Your task to perform on an android device: see creations saved in the google photos Image 0: 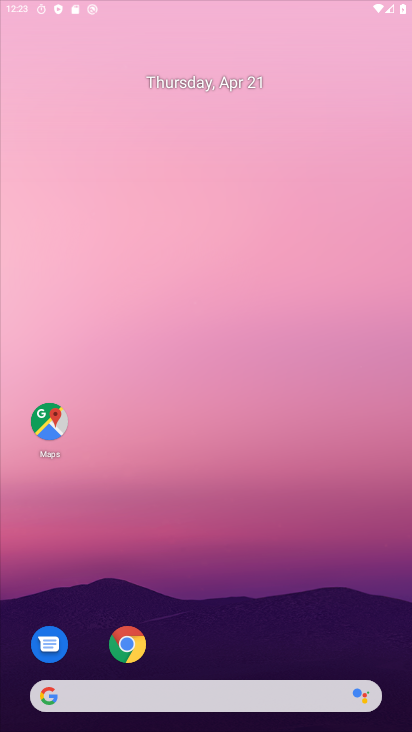
Step 0: click (121, 635)
Your task to perform on an android device: see creations saved in the google photos Image 1: 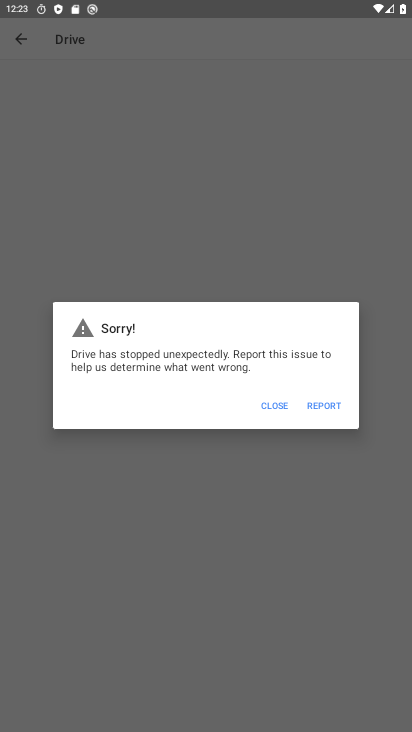
Step 1: click (279, 401)
Your task to perform on an android device: see creations saved in the google photos Image 2: 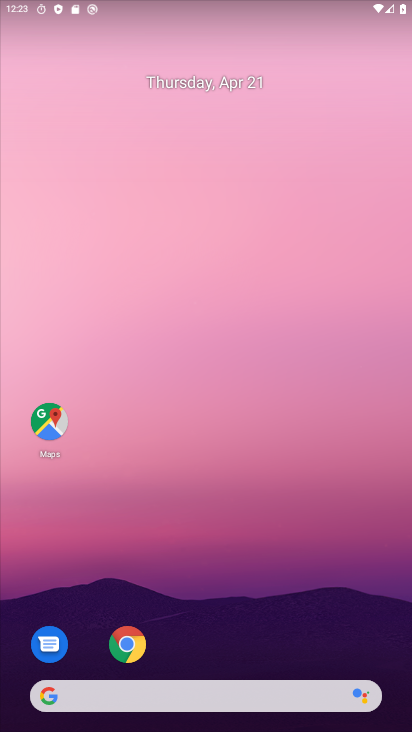
Step 2: drag from (205, 607) to (317, 20)
Your task to perform on an android device: see creations saved in the google photos Image 3: 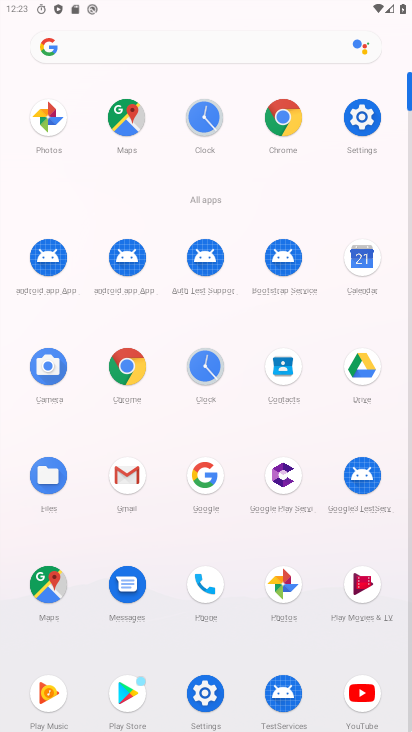
Step 3: click (288, 588)
Your task to perform on an android device: see creations saved in the google photos Image 4: 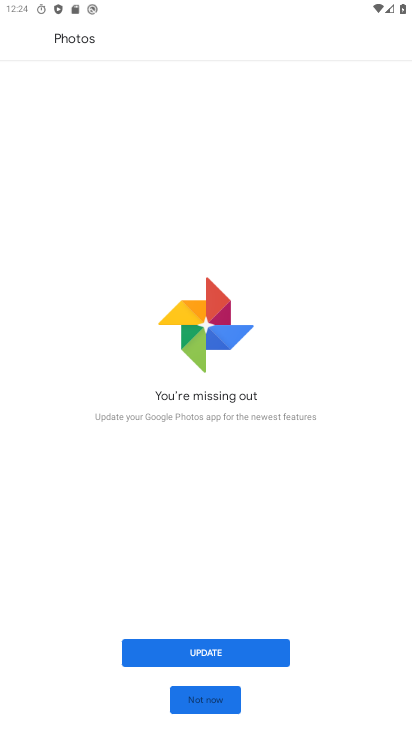
Step 4: click (211, 709)
Your task to perform on an android device: see creations saved in the google photos Image 5: 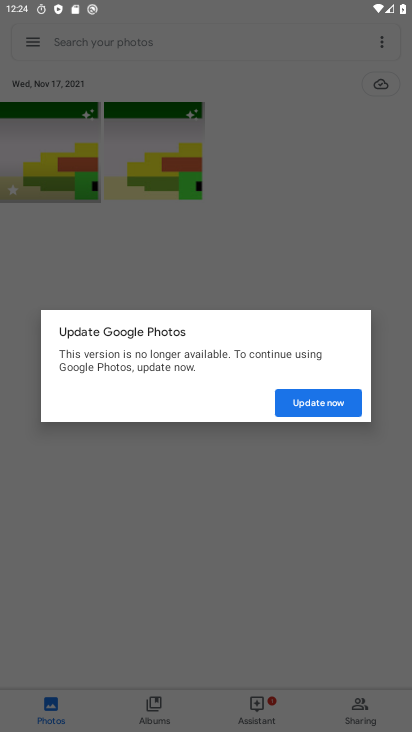
Step 5: click (307, 401)
Your task to perform on an android device: see creations saved in the google photos Image 6: 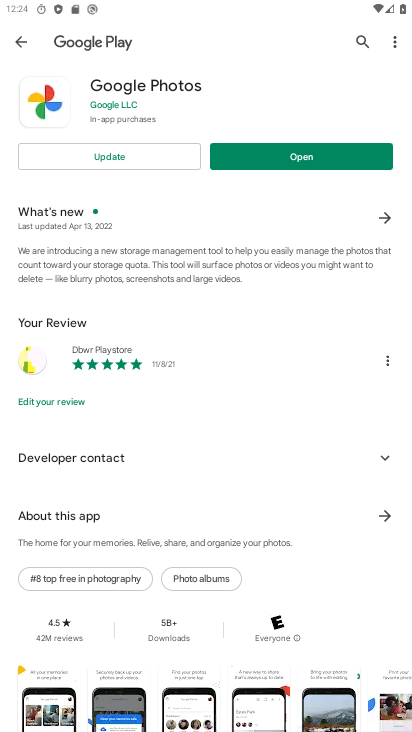
Step 6: click (287, 159)
Your task to perform on an android device: see creations saved in the google photos Image 7: 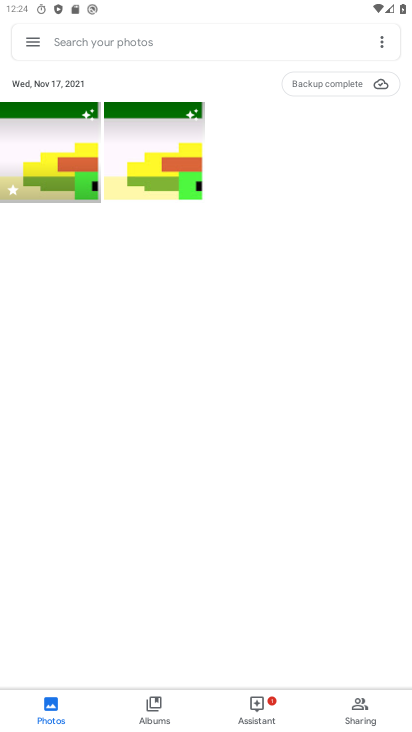
Step 7: click (27, 36)
Your task to perform on an android device: see creations saved in the google photos Image 8: 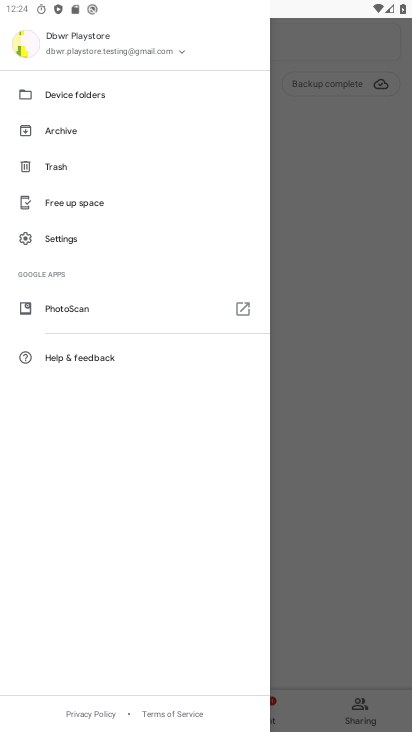
Step 8: click (66, 125)
Your task to perform on an android device: see creations saved in the google photos Image 9: 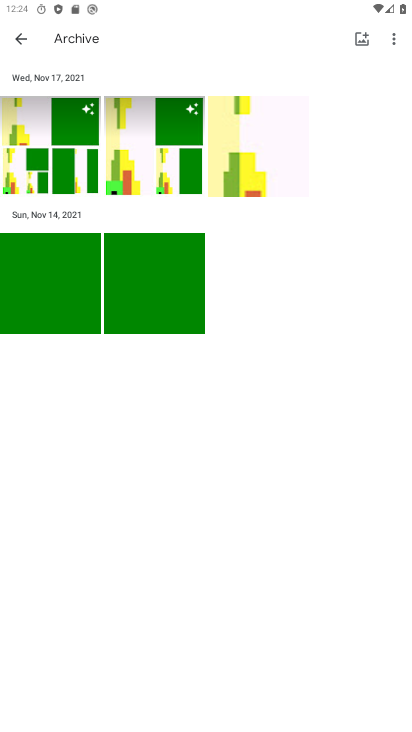
Step 9: task complete